Your task to perform on an android device: Empty the shopping cart on newegg. Add usb-c to usb-a to the cart on newegg Image 0: 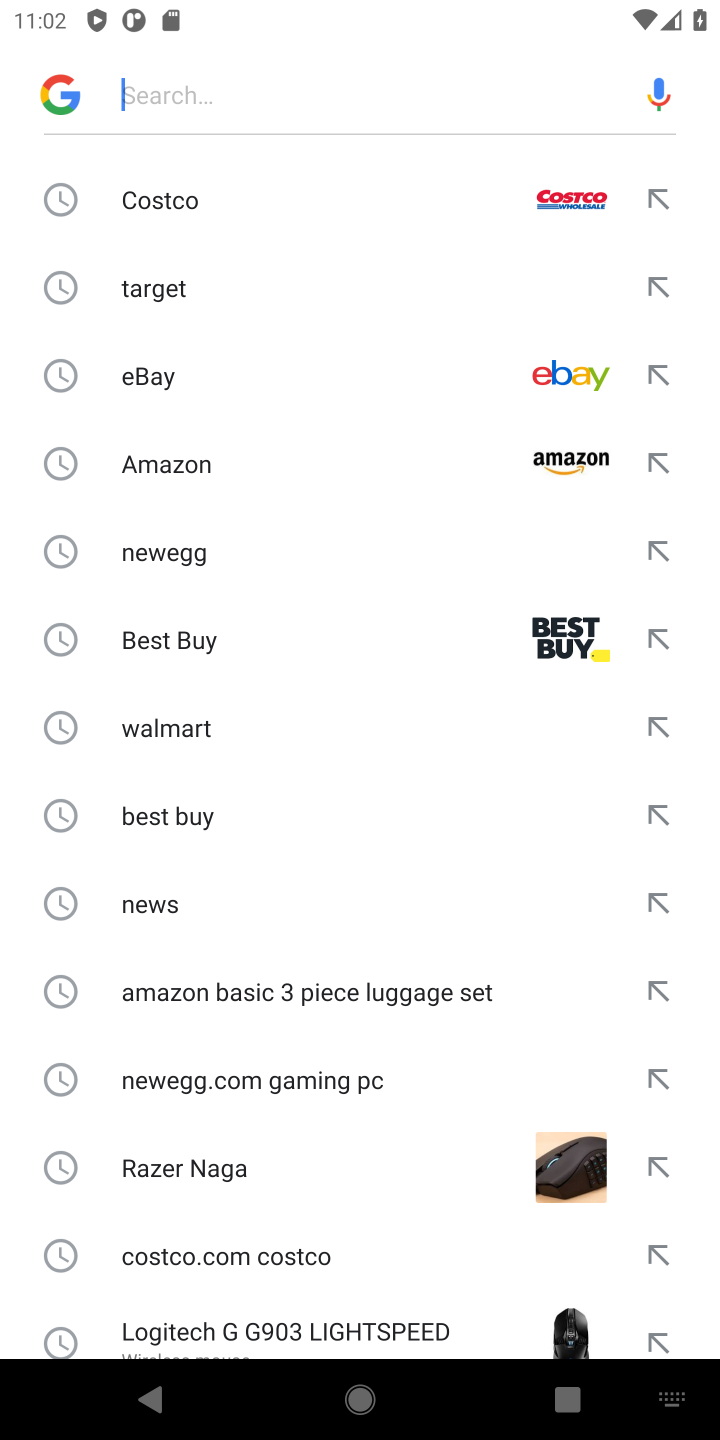
Step 0: click (202, 562)
Your task to perform on an android device: Empty the shopping cart on newegg. Add usb-c to usb-a to the cart on newegg Image 1: 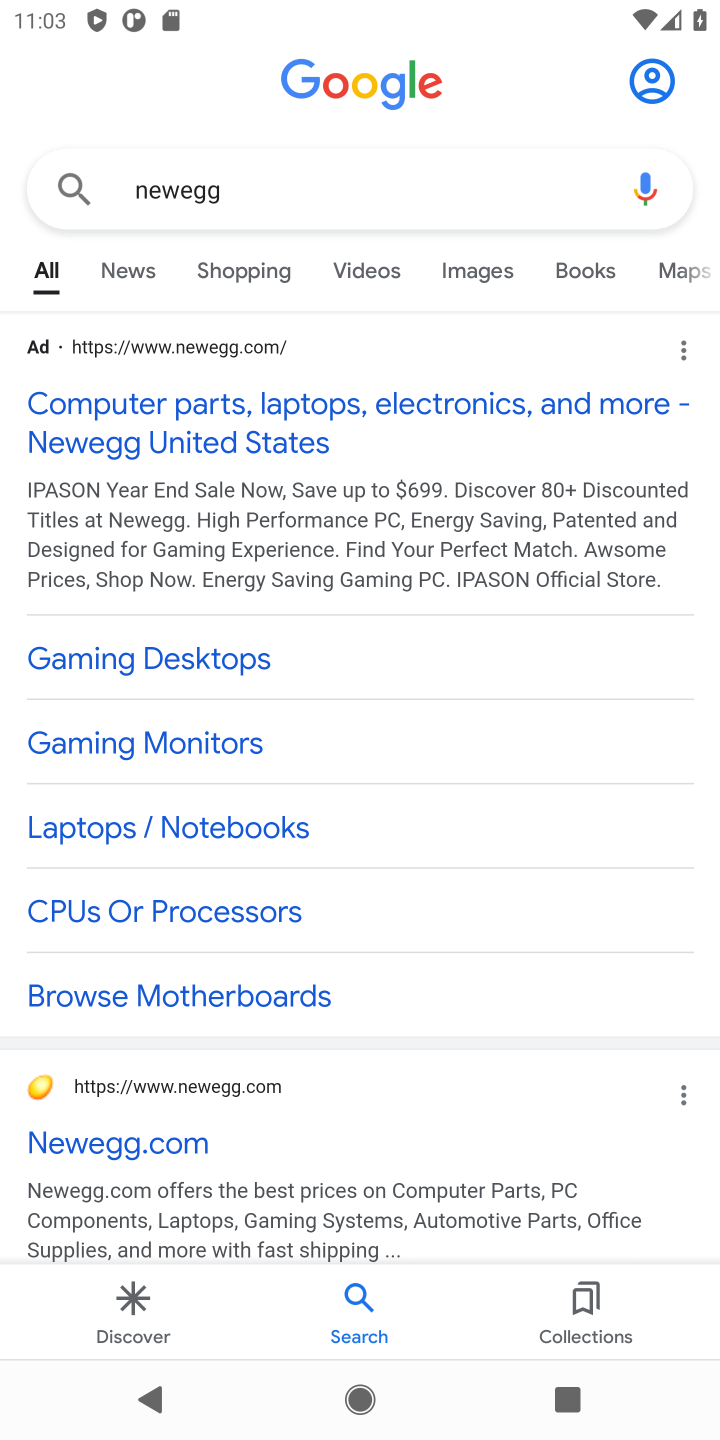
Step 1: click (235, 420)
Your task to perform on an android device: Empty the shopping cart on newegg. Add usb-c to usb-a to the cart on newegg Image 2: 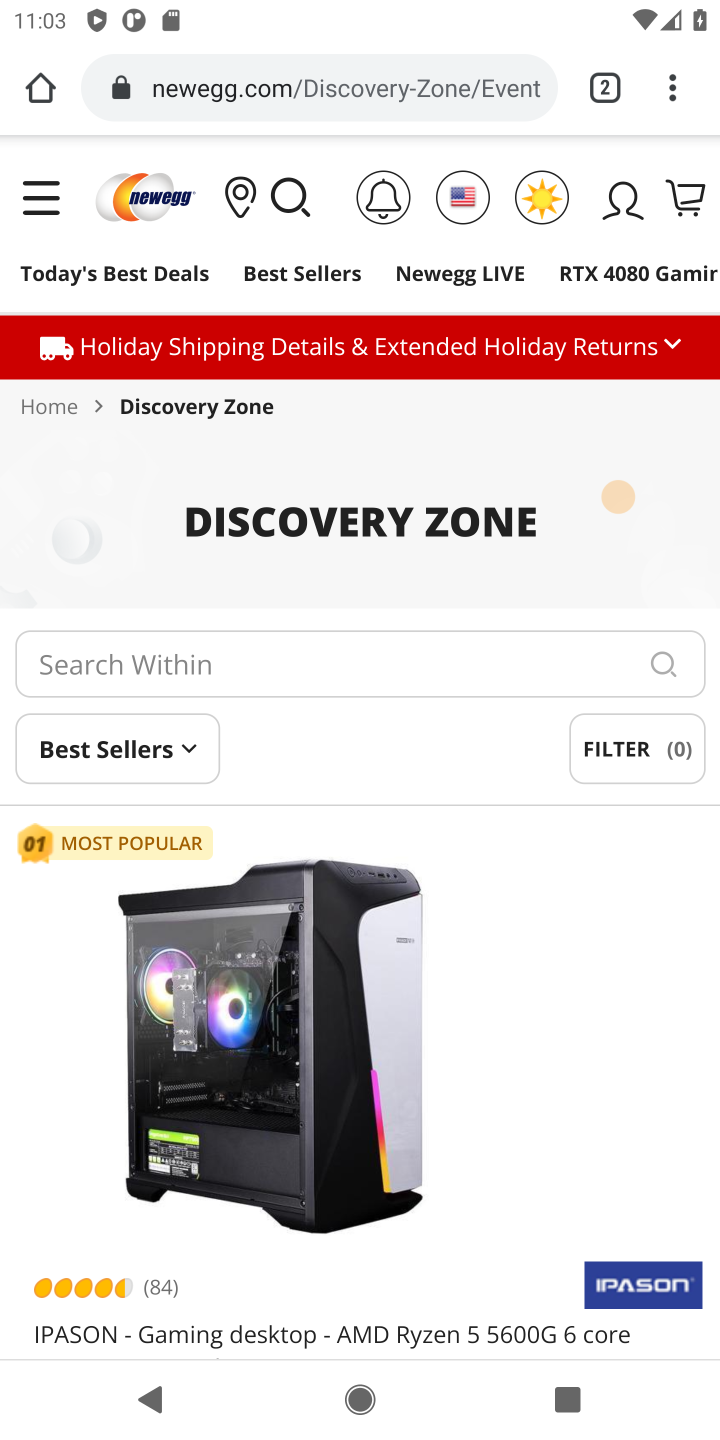
Step 2: click (426, 668)
Your task to perform on an android device: Empty the shopping cart on newegg. Add usb-c to usb-a to the cart on newegg Image 3: 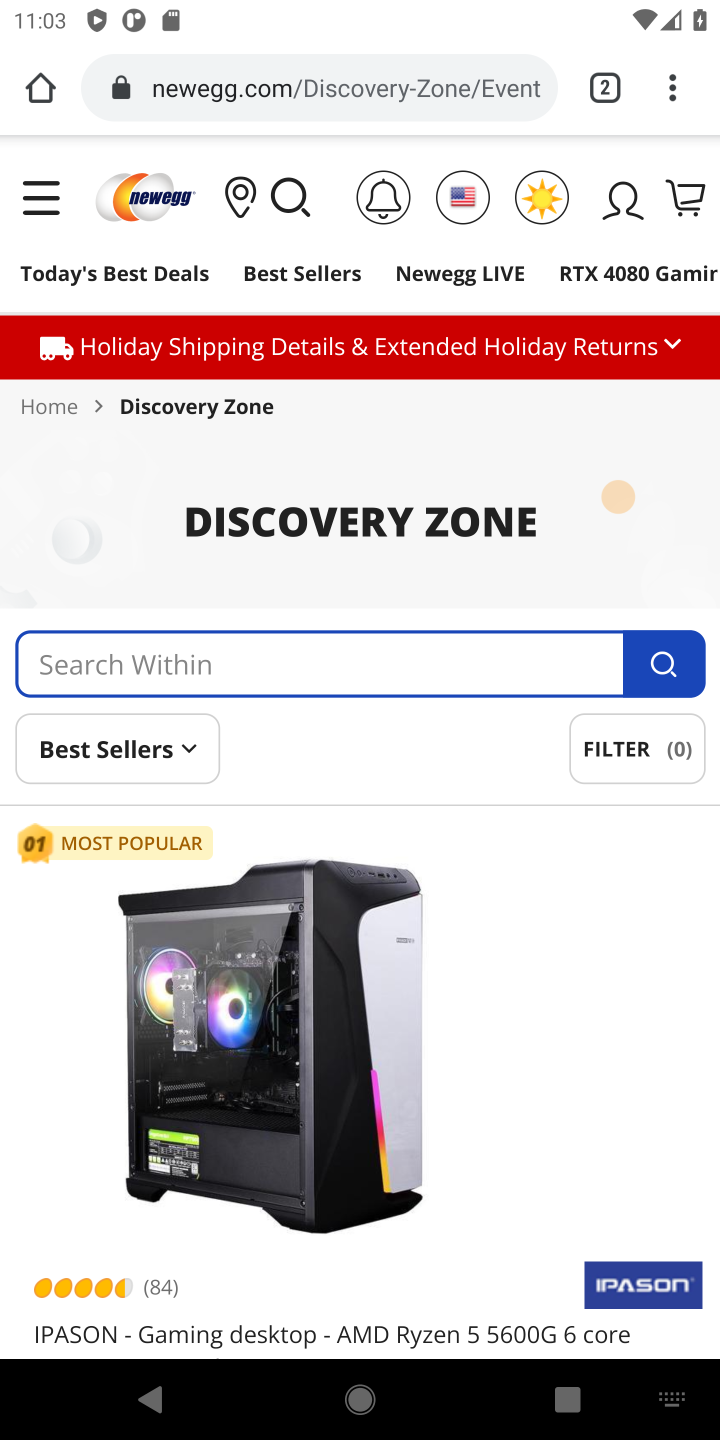
Step 3: click (683, 197)
Your task to perform on an android device: Empty the shopping cart on newegg. Add usb-c to usb-a to the cart on newegg Image 4: 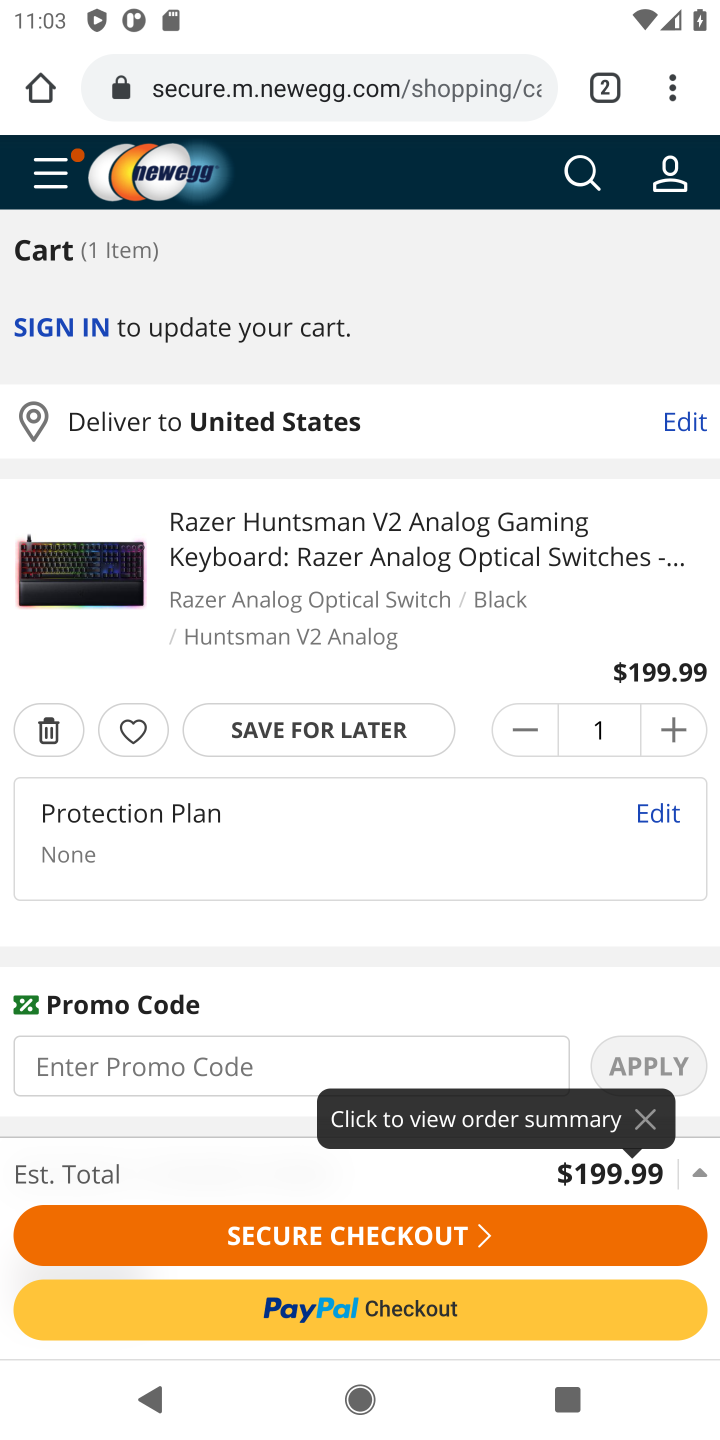
Step 4: click (48, 732)
Your task to perform on an android device: Empty the shopping cart on newegg. Add usb-c to usb-a to the cart on newegg Image 5: 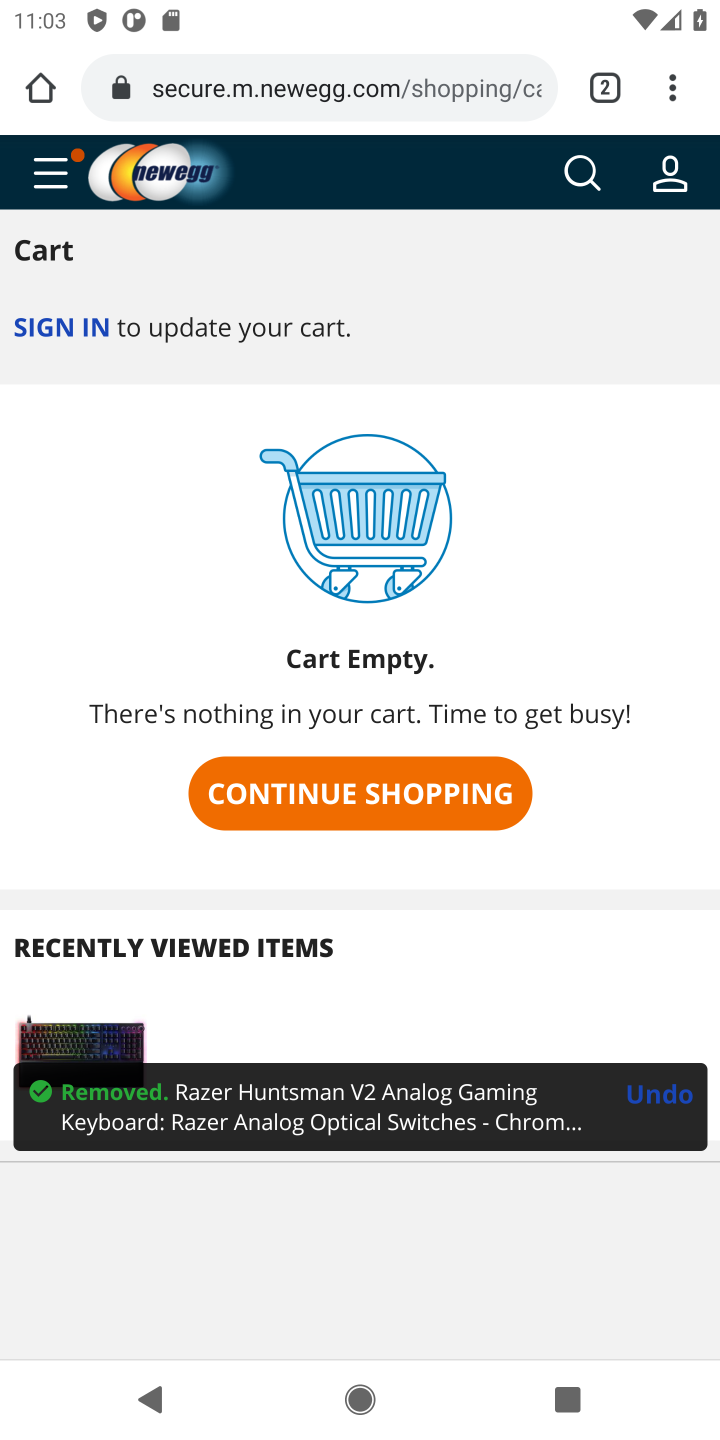
Step 5: click (586, 170)
Your task to perform on an android device: Empty the shopping cart on newegg. Add usb-c to usb-a to the cart on newegg Image 6: 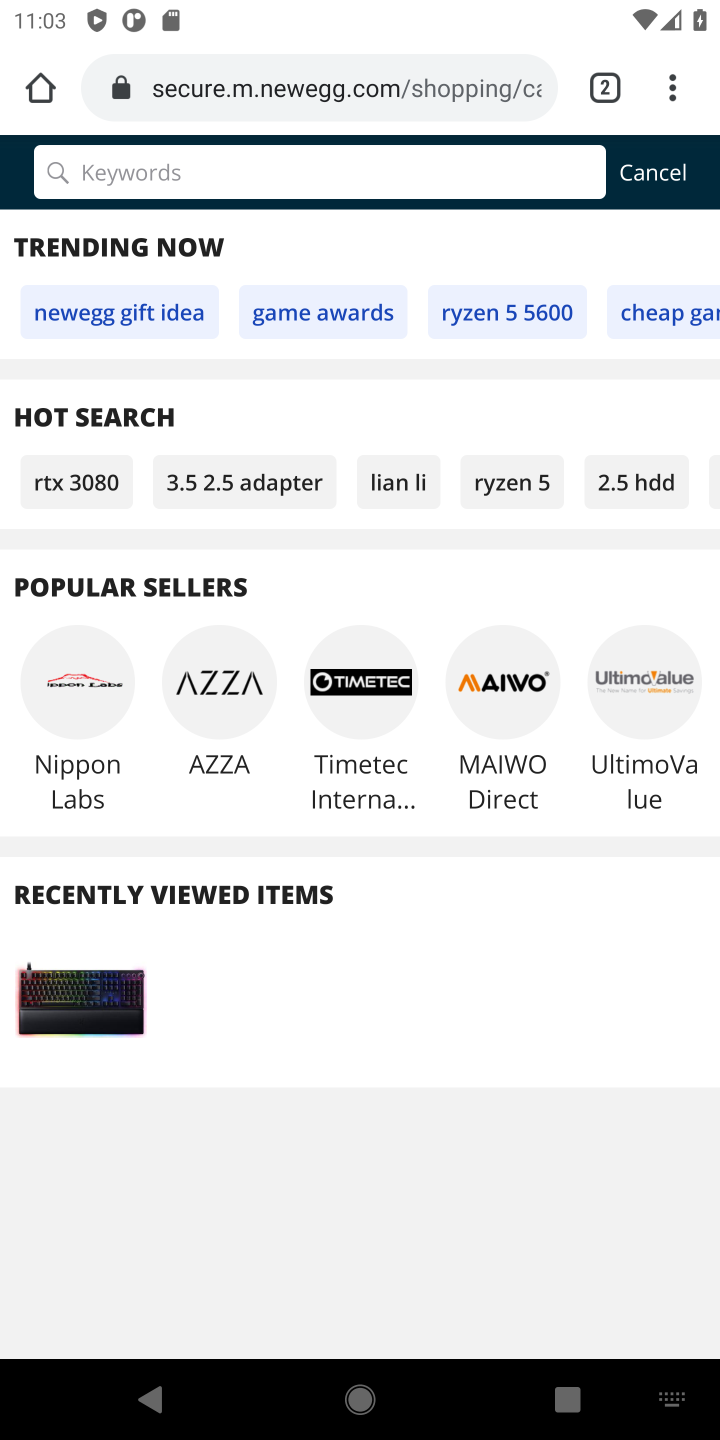
Step 6: type "usb-c"
Your task to perform on an android device: Empty the shopping cart on newegg. Add usb-c to usb-a to the cart on newegg Image 7: 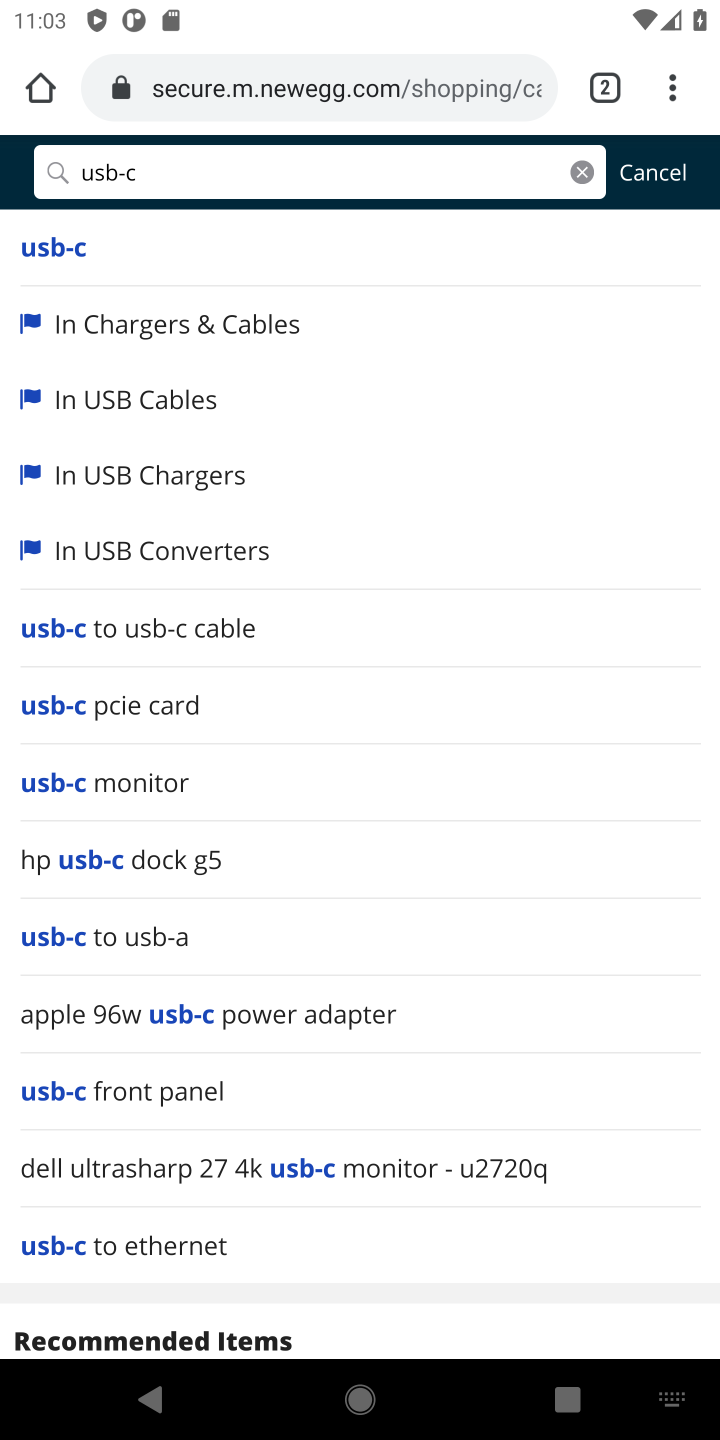
Step 7: click (56, 250)
Your task to perform on an android device: Empty the shopping cart on newegg. Add usb-c to usb-a to the cart on newegg Image 8: 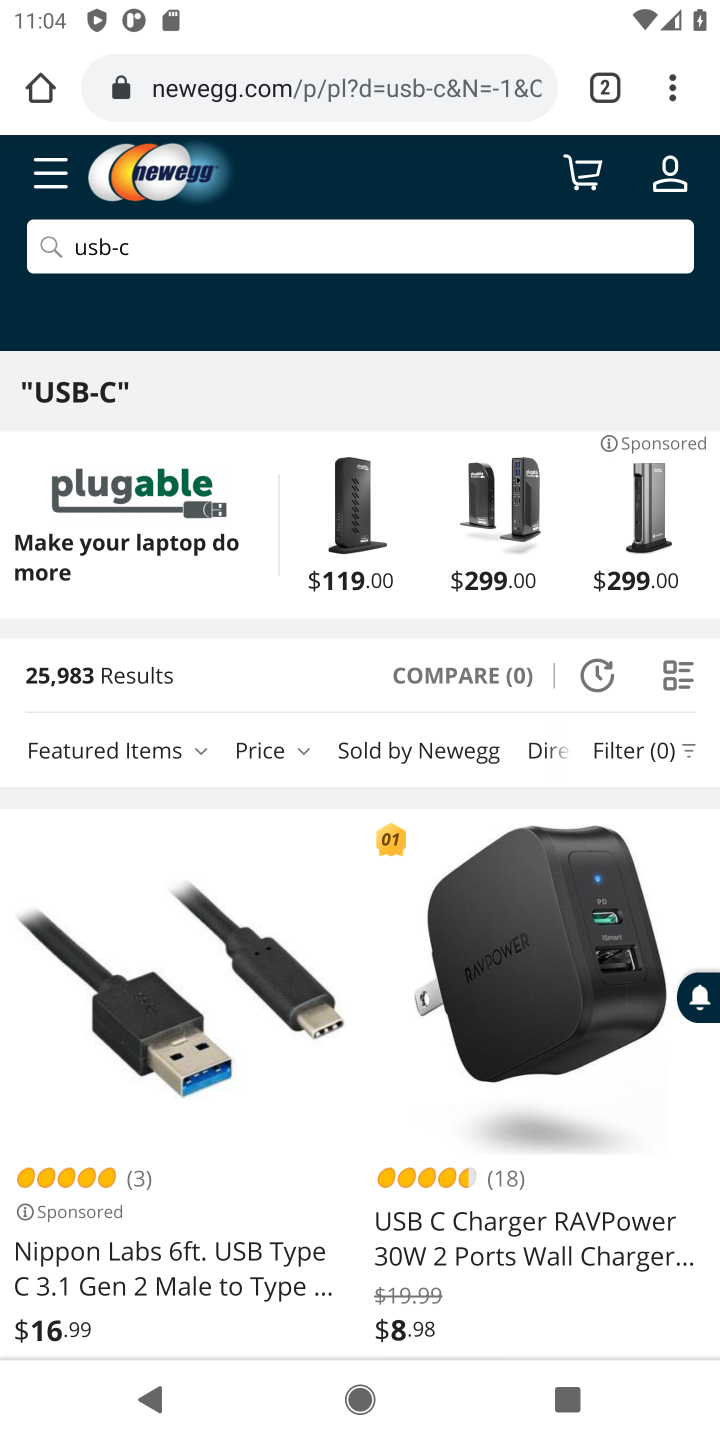
Step 8: click (190, 1085)
Your task to perform on an android device: Empty the shopping cart on newegg. Add usb-c to usb-a to the cart on newegg Image 9: 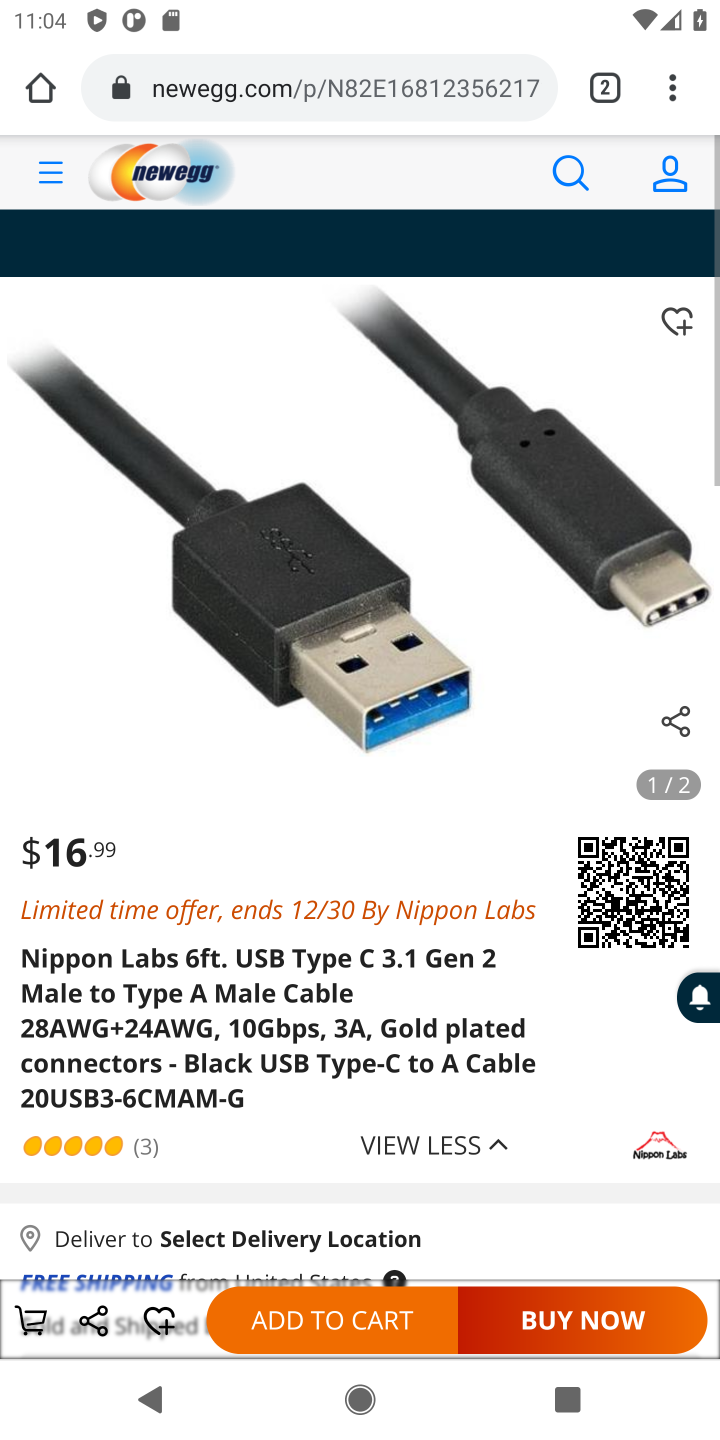
Step 9: click (345, 1322)
Your task to perform on an android device: Empty the shopping cart on newegg. Add usb-c to usb-a to the cart on newegg Image 10: 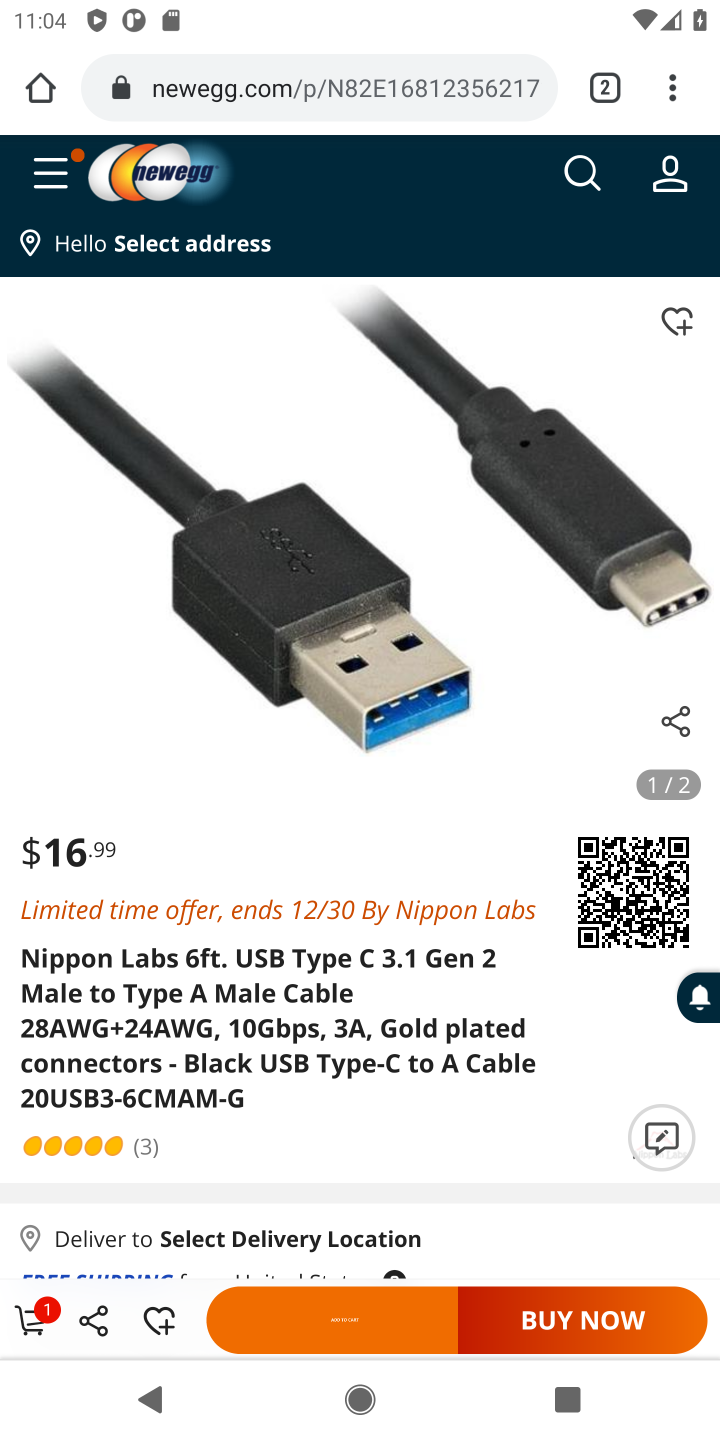
Step 10: task complete